Your task to perform on an android device: refresh tabs in the chrome app Image 0: 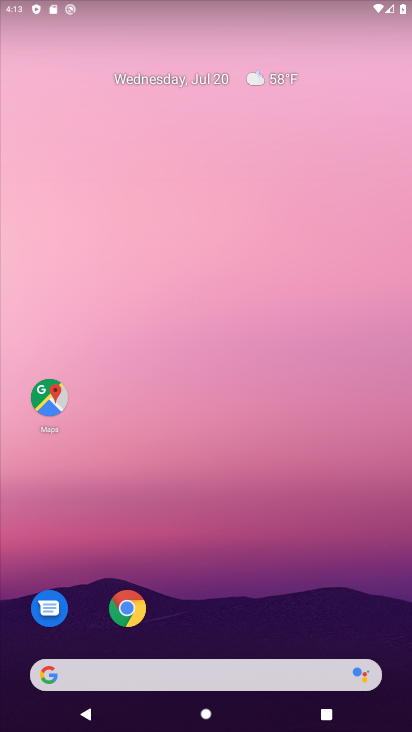
Step 0: drag from (211, 638) to (160, 192)
Your task to perform on an android device: refresh tabs in the chrome app Image 1: 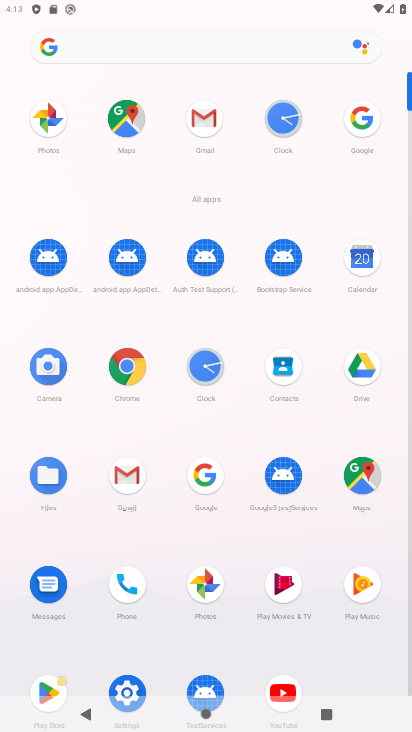
Step 1: click (134, 364)
Your task to perform on an android device: refresh tabs in the chrome app Image 2: 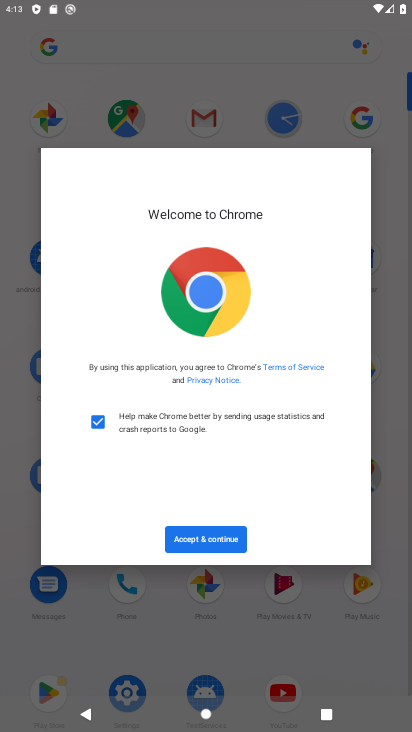
Step 2: click (179, 518)
Your task to perform on an android device: refresh tabs in the chrome app Image 3: 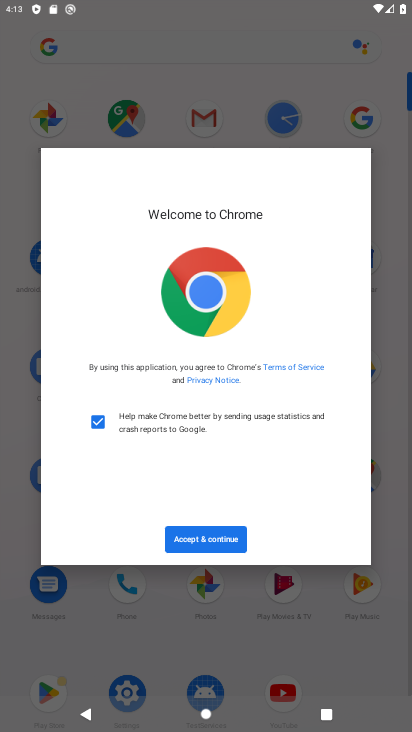
Step 3: click (179, 518)
Your task to perform on an android device: refresh tabs in the chrome app Image 4: 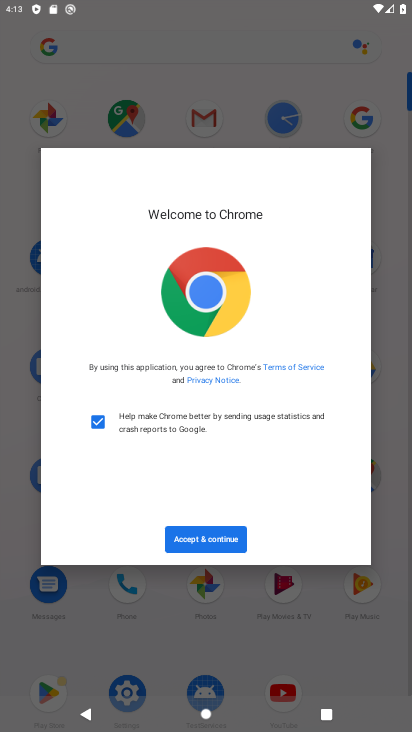
Step 4: click (192, 535)
Your task to perform on an android device: refresh tabs in the chrome app Image 5: 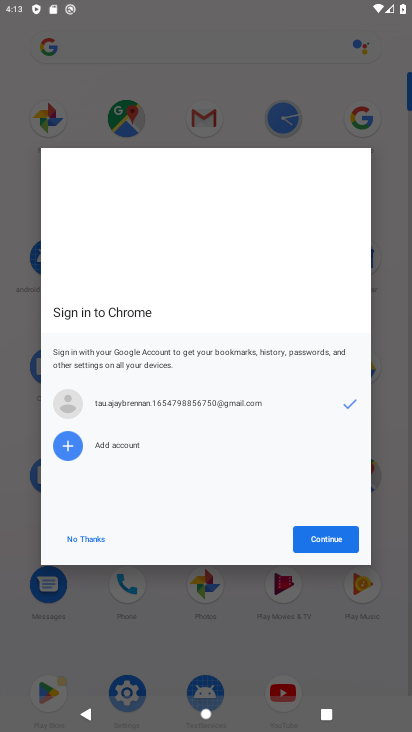
Step 5: click (315, 524)
Your task to perform on an android device: refresh tabs in the chrome app Image 6: 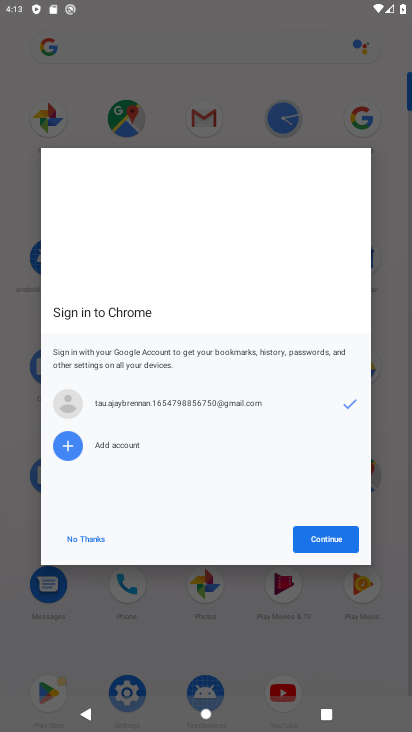
Step 6: click (343, 545)
Your task to perform on an android device: refresh tabs in the chrome app Image 7: 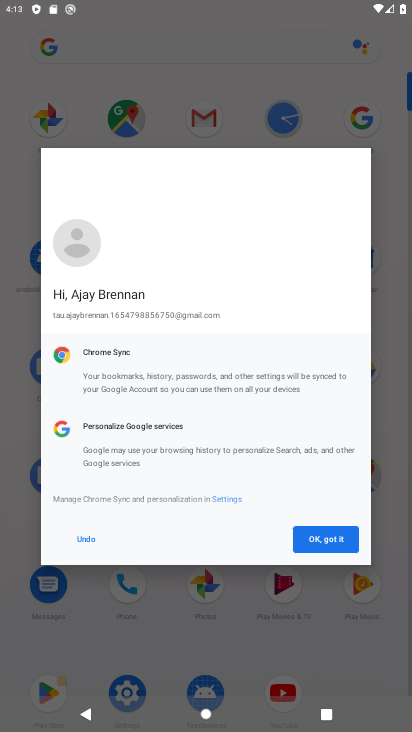
Step 7: click (343, 545)
Your task to perform on an android device: refresh tabs in the chrome app Image 8: 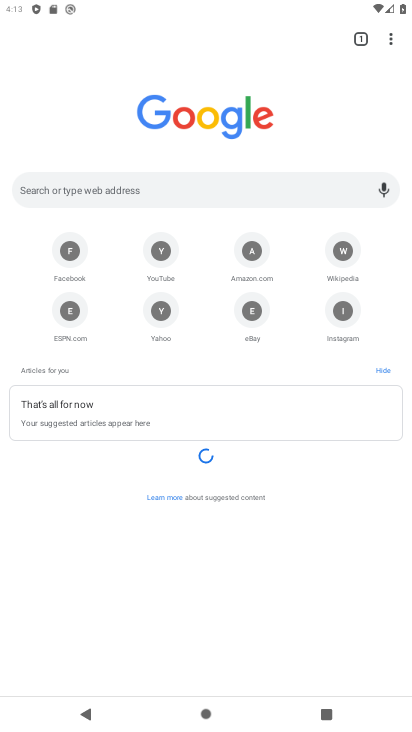
Step 8: click (388, 38)
Your task to perform on an android device: refresh tabs in the chrome app Image 9: 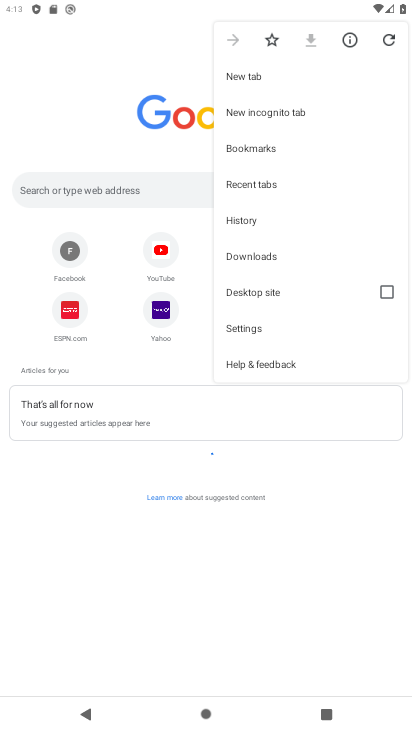
Step 9: click (381, 37)
Your task to perform on an android device: refresh tabs in the chrome app Image 10: 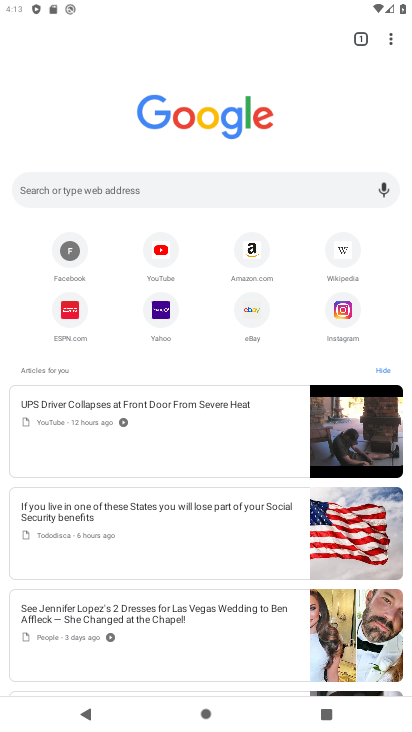
Step 10: task complete